Your task to perform on an android device: Open the calendar app, open the side menu, and click the "Day" option Image 0: 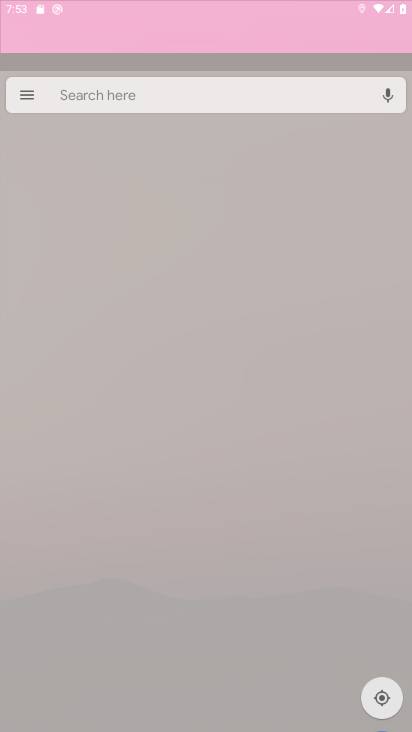
Step 0: press home button
Your task to perform on an android device: Open the calendar app, open the side menu, and click the "Day" option Image 1: 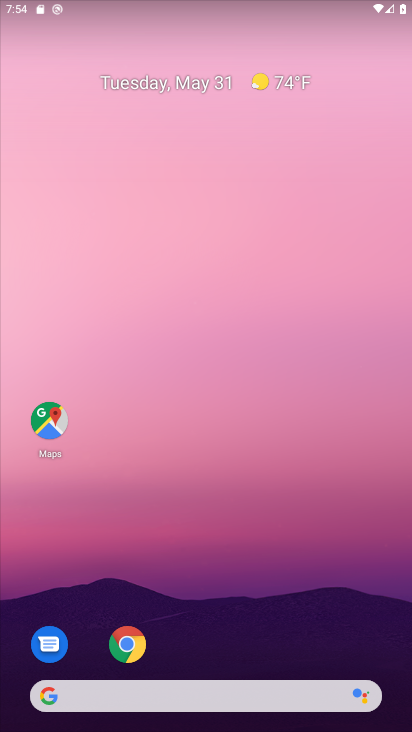
Step 1: drag from (238, 662) to (253, 49)
Your task to perform on an android device: Open the calendar app, open the side menu, and click the "Day" option Image 2: 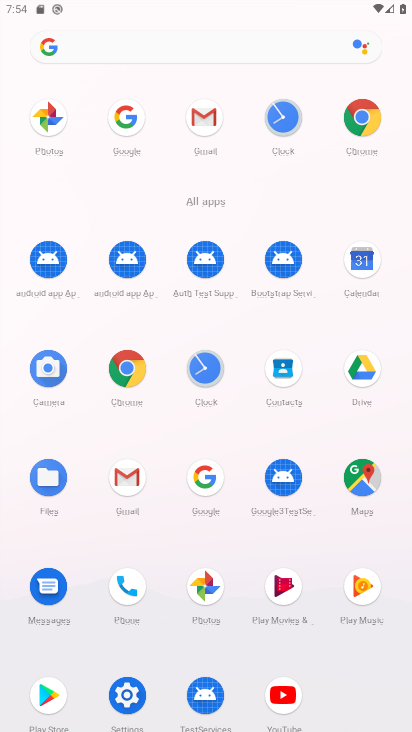
Step 2: click (358, 259)
Your task to perform on an android device: Open the calendar app, open the side menu, and click the "Day" option Image 3: 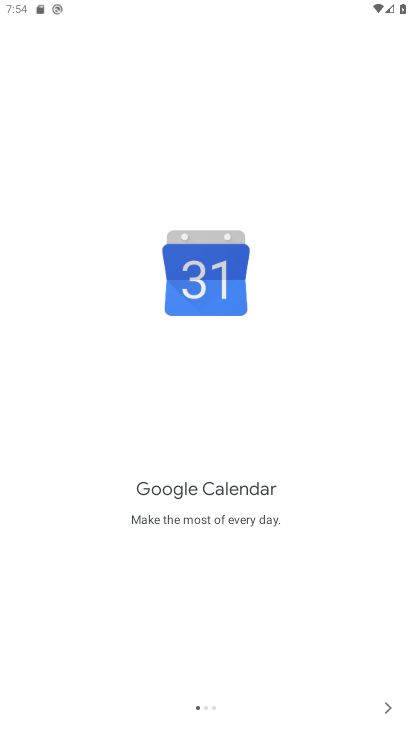
Step 3: click (385, 713)
Your task to perform on an android device: Open the calendar app, open the side menu, and click the "Day" option Image 4: 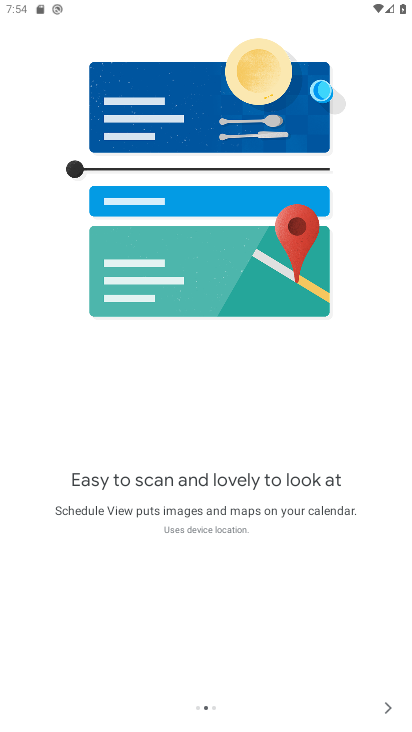
Step 4: click (386, 708)
Your task to perform on an android device: Open the calendar app, open the side menu, and click the "Day" option Image 5: 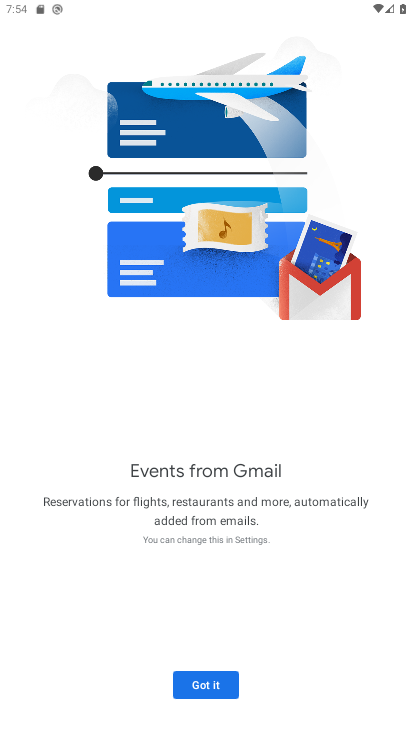
Step 5: click (196, 682)
Your task to perform on an android device: Open the calendar app, open the side menu, and click the "Day" option Image 6: 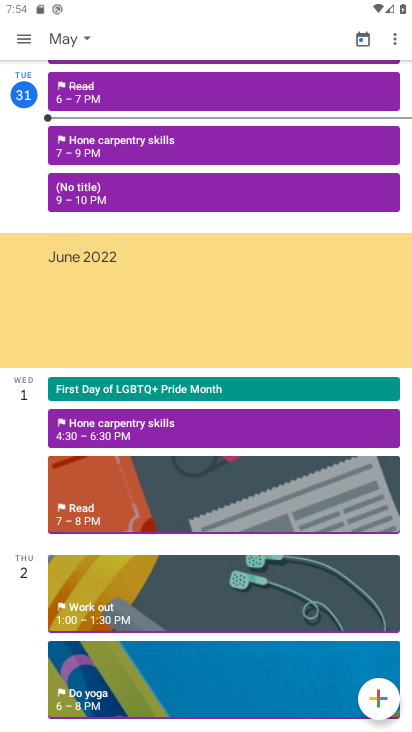
Step 6: click (17, 36)
Your task to perform on an android device: Open the calendar app, open the side menu, and click the "Day" option Image 7: 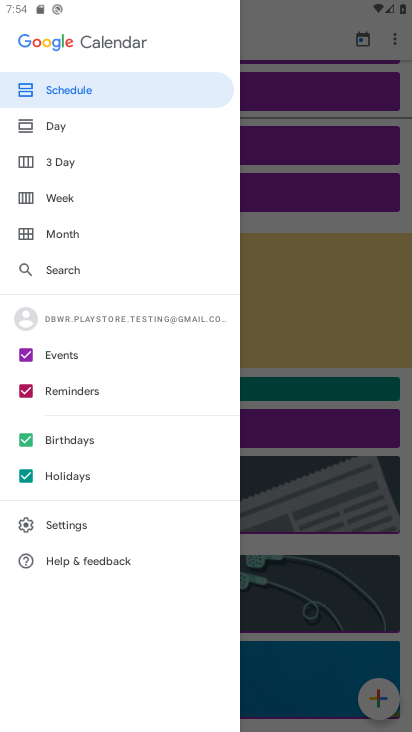
Step 7: click (61, 121)
Your task to perform on an android device: Open the calendar app, open the side menu, and click the "Day" option Image 8: 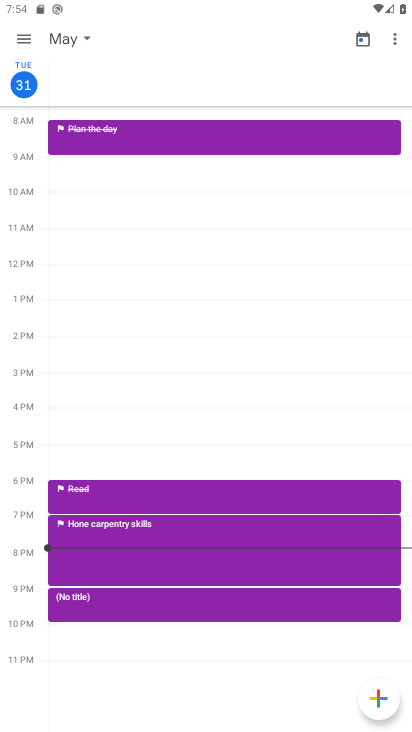
Step 8: task complete